Your task to perform on an android device: Open CNN.com Image 0: 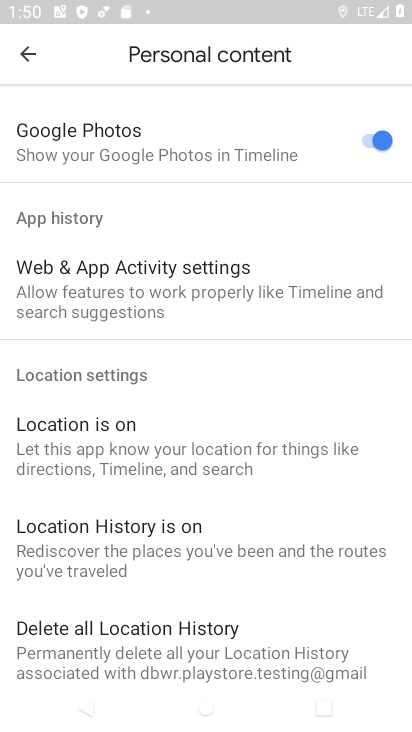
Step 0: press home button
Your task to perform on an android device: Open CNN.com Image 1: 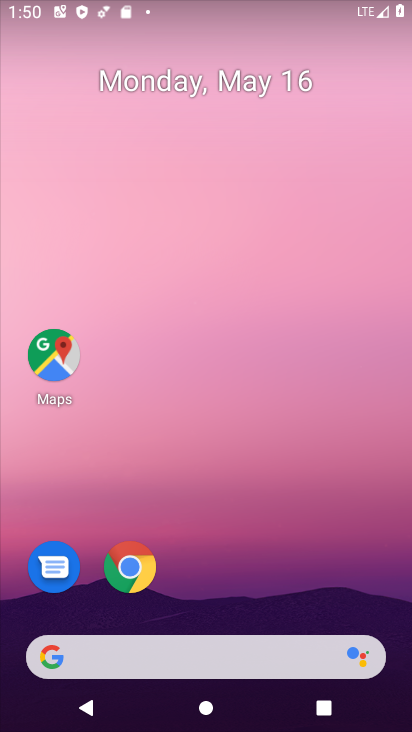
Step 1: click (136, 586)
Your task to perform on an android device: Open CNN.com Image 2: 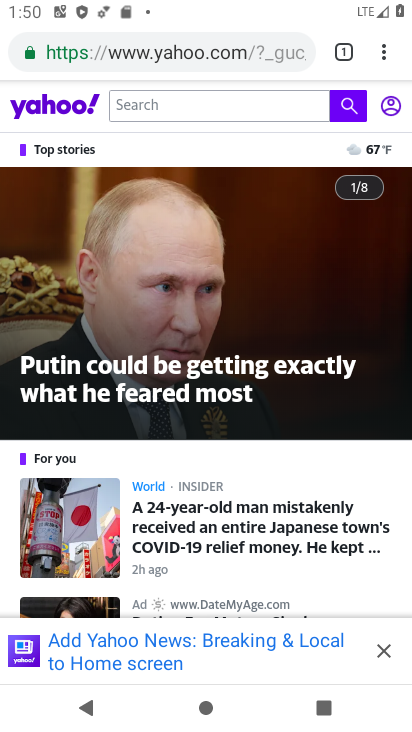
Step 2: click (120, 43)
Your task to perform on an android device: Open CNN.com Image 3: 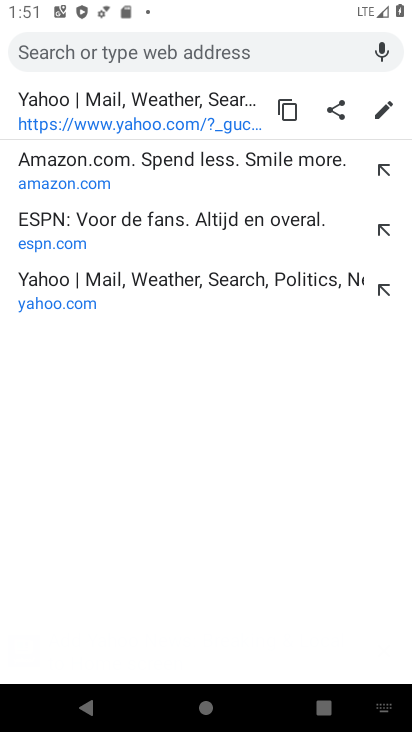
Step 3: type "cnn.com"
Your task to perform on an android device: Open CNN.com Image 4: 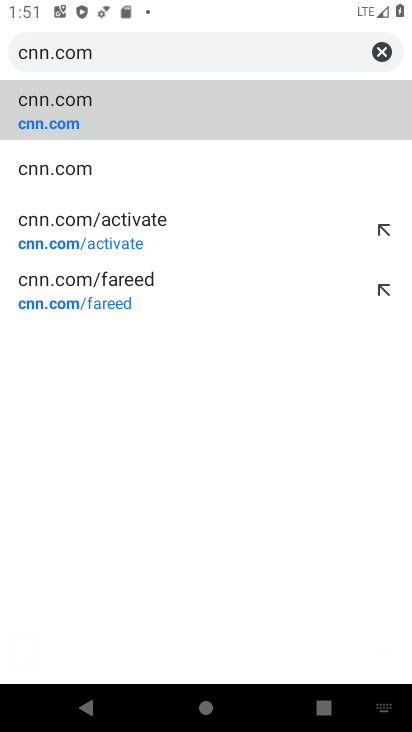
Step 4: click (69, 119)
Your task to perform on an android device: Open CNN.com Image 5: 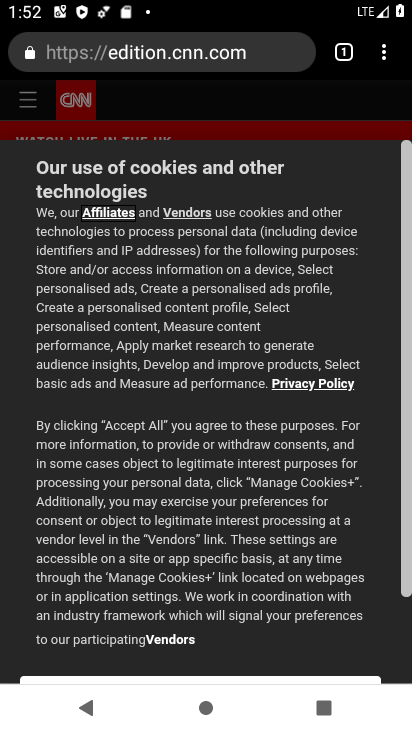
Step 5: task complete